Your task to perform on an android device: turn on priority inbox in the gmail app Image 0: 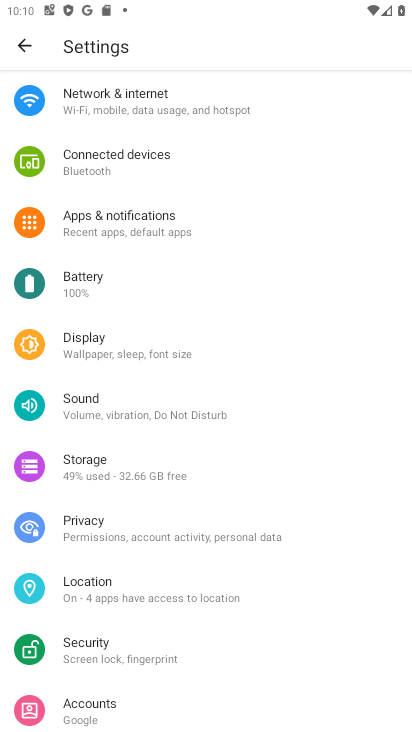
Step 0: press home button
Your task to perform on an android device: turn on priority inbox in the gmail app Image 1: 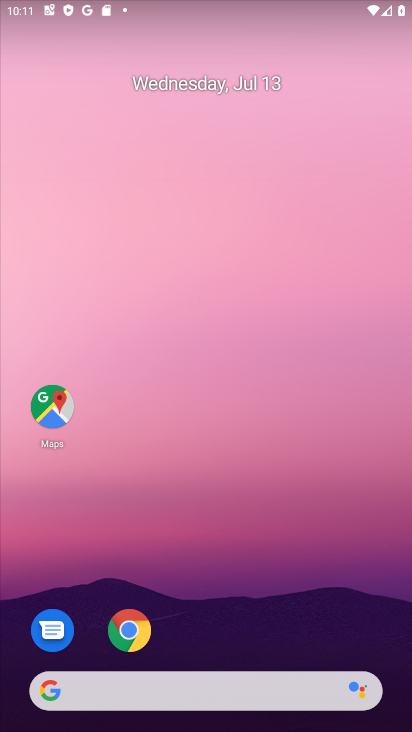
Step 1: drag from (244, 642) to (250, 160)
Your task to perform on an android device: turn on priority inbox in the gmail app Image 2: 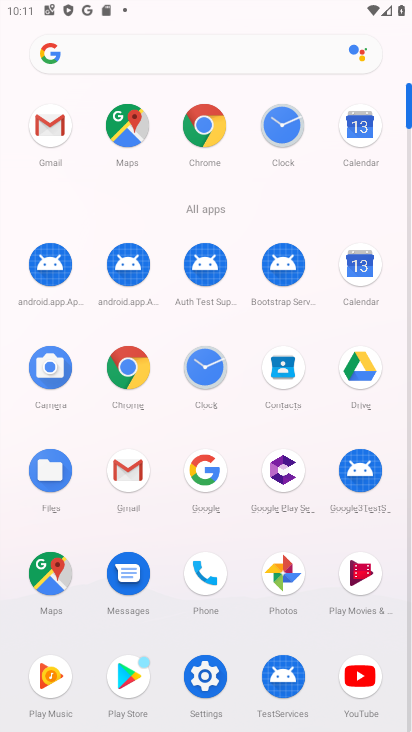
Step 2: click (48, 121)
Your task to perform on an android device: turn on priority inbox in the gmail app Image 3: 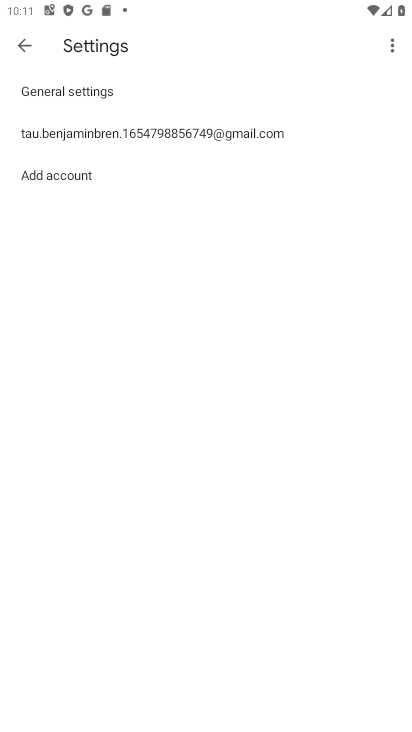
Step 3: click (122, 141)
Your task to perform on an android device: turn on priority inbox in the gmail app Image 4: 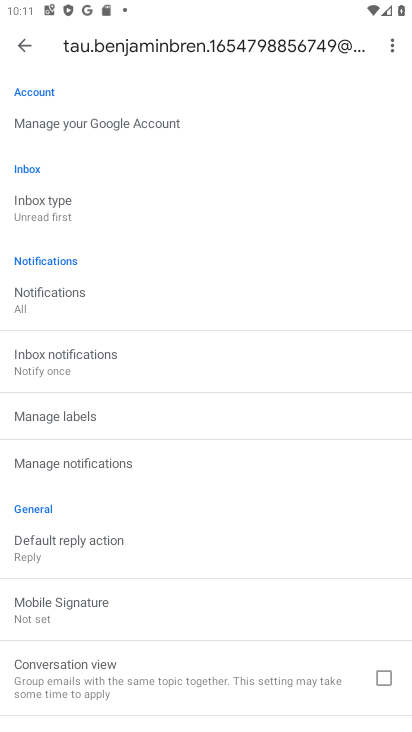
Step 4: click (87, 217)
Your task to perform on an android device: turn on priority inbox in the gmail app Image 5: 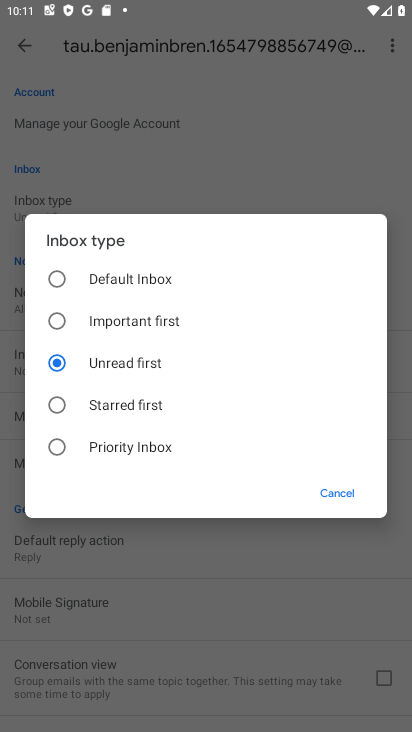
Step 5: click (70, 446)
Your task to perform on an android device: turn on priority inbox in the gmail app Image 6: 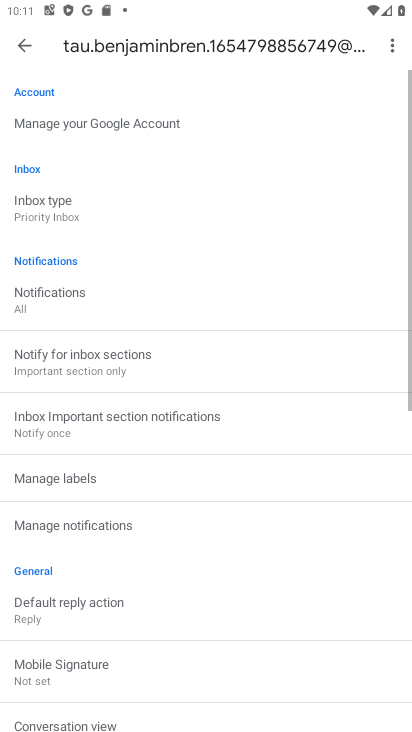
Step 6: task complete